Your task to perform on an android device: Open calendar and show me the fourth week of next month Image 0: 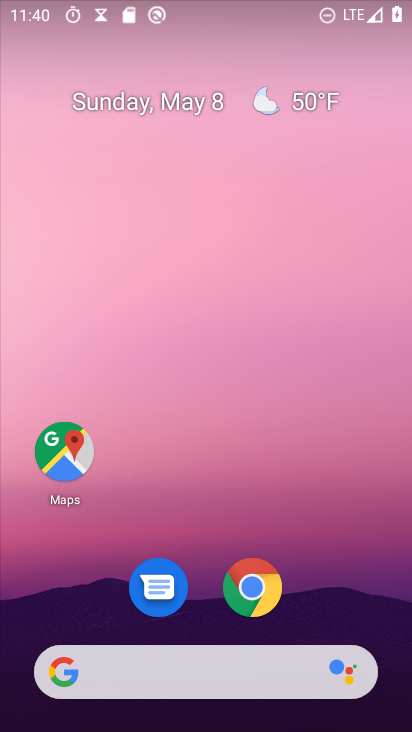
Step 0: drag from (337, 617) to (216, 60)
Your task to perform on an android device: Open calendar and show me the fourth week of next month Image 1: 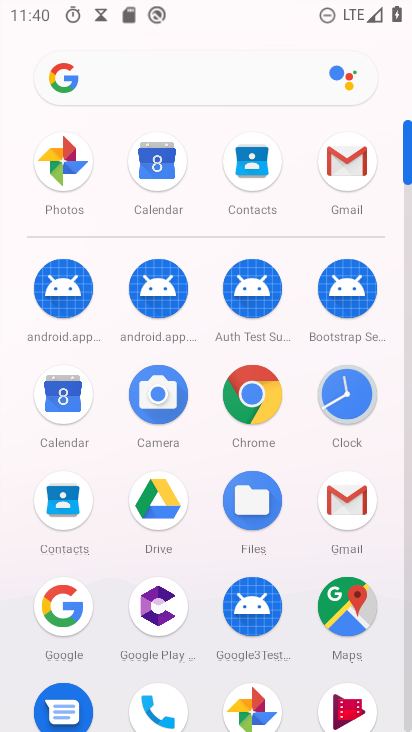
Step 1: click (160, 170)
Your task to perform on an android device: Open calendar and show me the fourth week of next month Image 2: 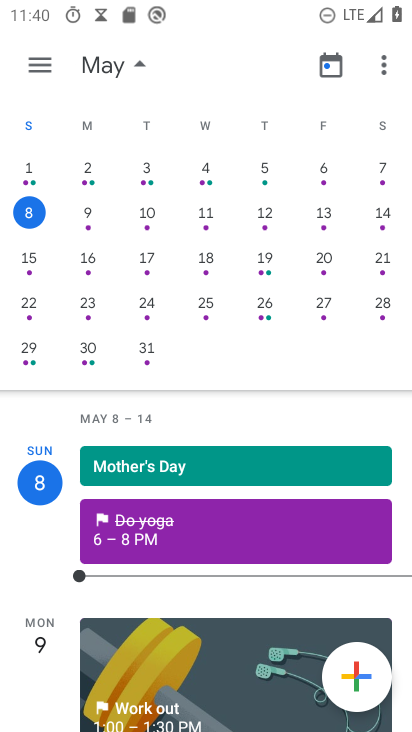
Step 2: drag from (361, 253) to (0, 220)
Your task to perform on an android device: Open calendar and show me the fourth week of next month Image 3: 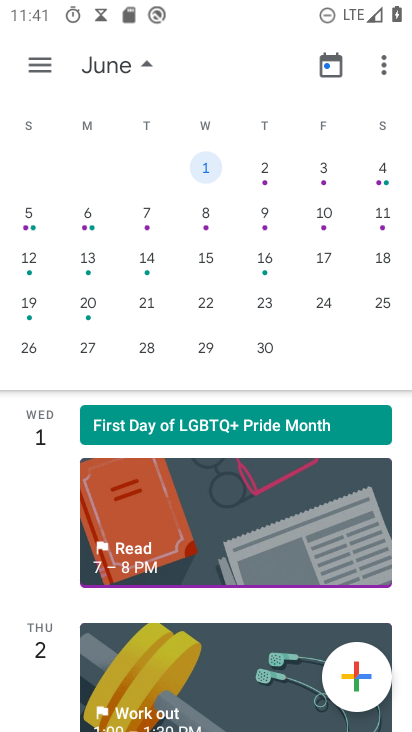
Step 3: click (31, 303)
Your task to perform on an android device: Open calendar and show me the fourth week of next month Image 4: 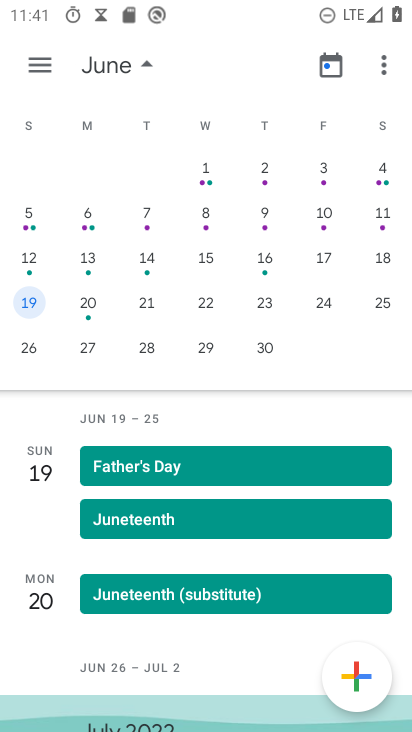
Step 4: click (37, 66)
Your task to perform on an android device: Open calendar and show me the fourth week of next month Image 5: 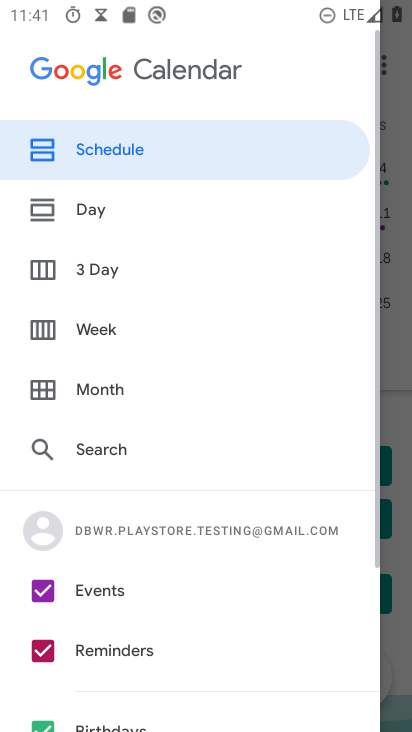
Step 5: click (75, 328)
Your task to perform on an android device: Open calendar and show me the fourth week of next month Image 6: 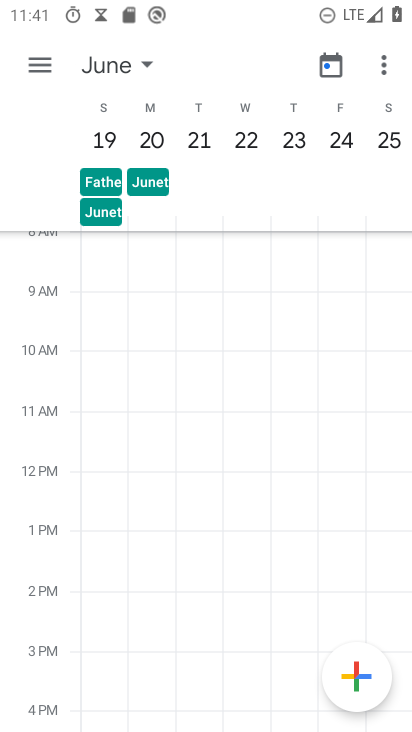
Step 6: task complete